Your task to perform on an android device: check battery use Image 0: 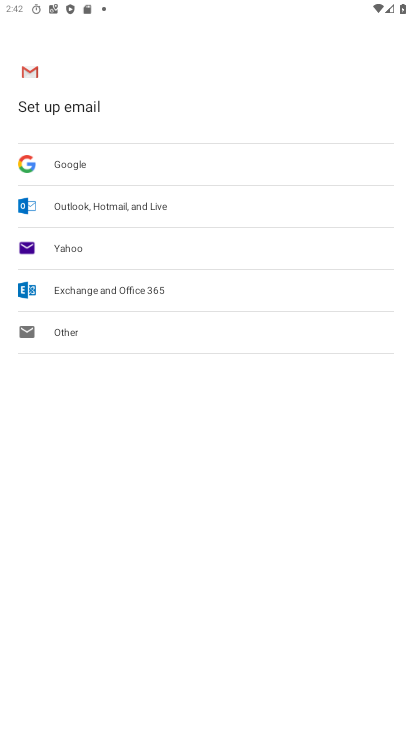
Step 0: press home button
Your task to perform on an android device: check battery use Image 1: 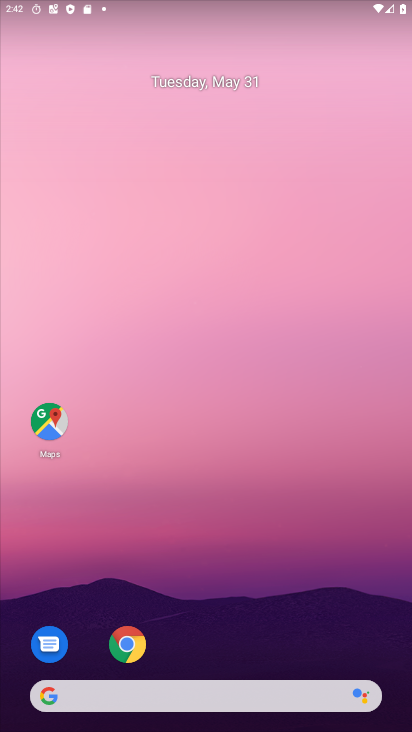
Step 1: drag from (396, 647) to (403, 214)
Your task to perform on an android device: check battery use Image 2: 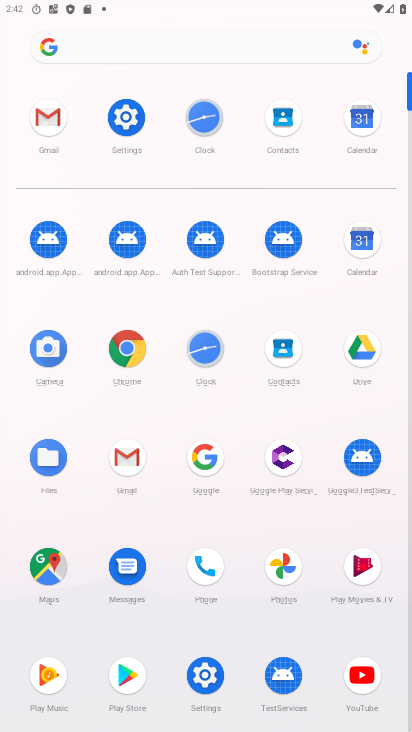
Step 2: click (120, 115)
Your task to perform on an android device: check battery use Image 3: 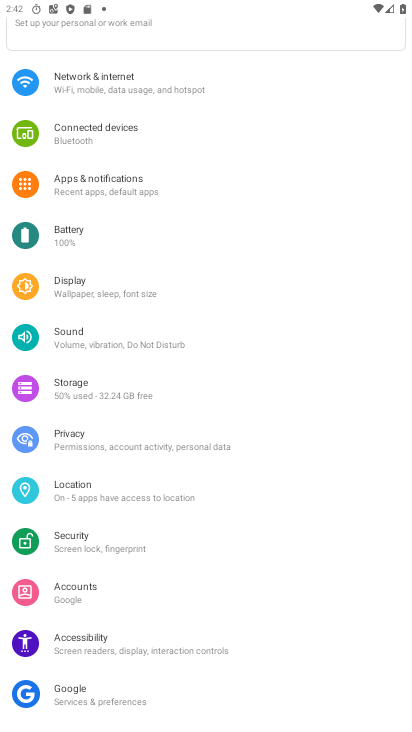
Step 3: click (58, 234)
Your task to perform on an android device: check battery use Image 4: 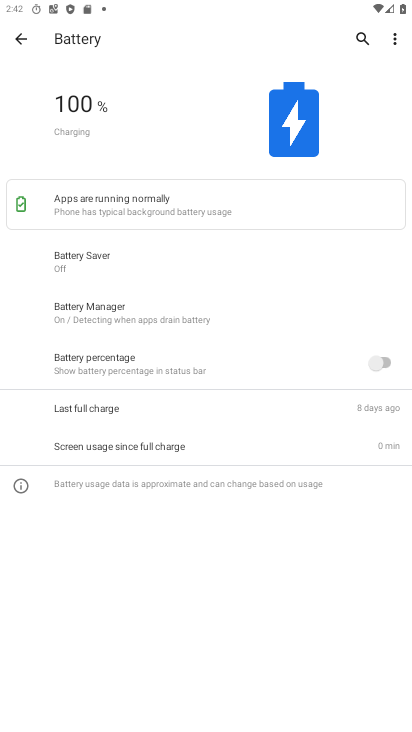
Step 4: task complete